Your task to perform on an android device: See recent photos Image 0: 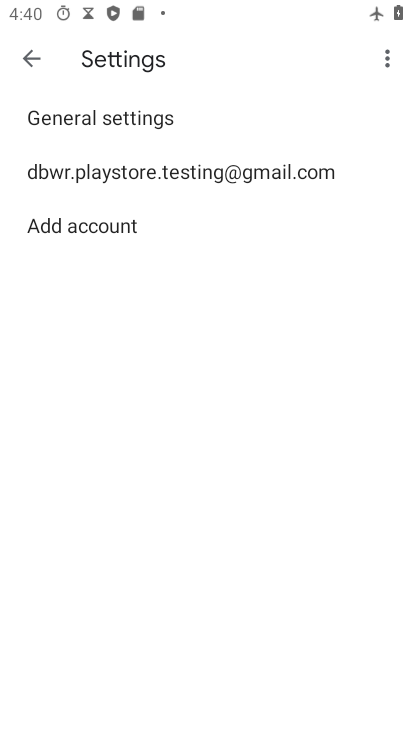
Step 0: press home button
Your task to perform on an android device: See recent photos Image 1: 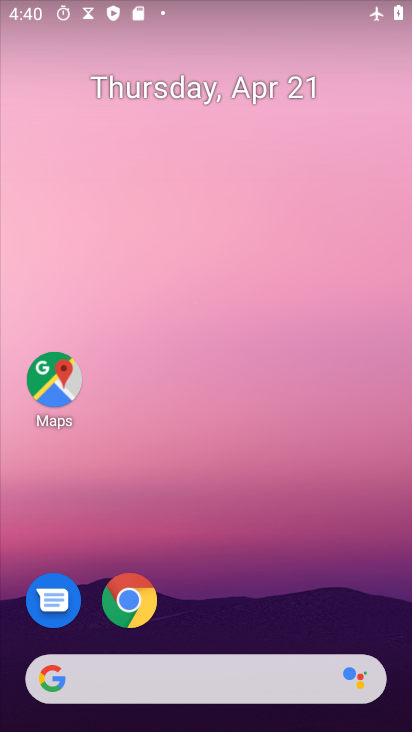
Step 1: drag from (258, 616) to (190, 58)
Your task to perform on an android device: See recent photos Image 2: 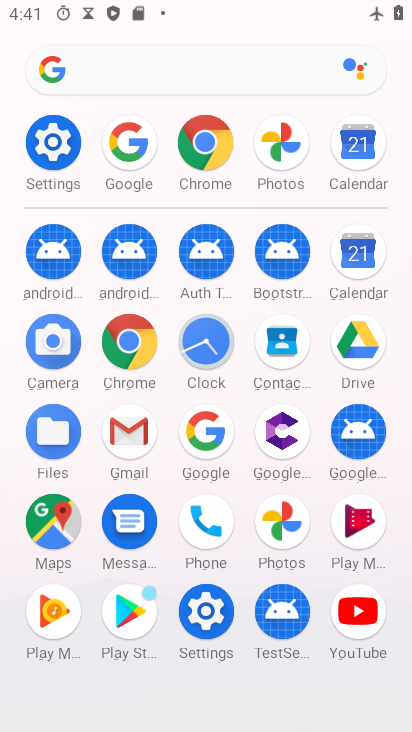
Step 2: click (280, 521)
Your task to perform on an android device: See recent photos Image 3: 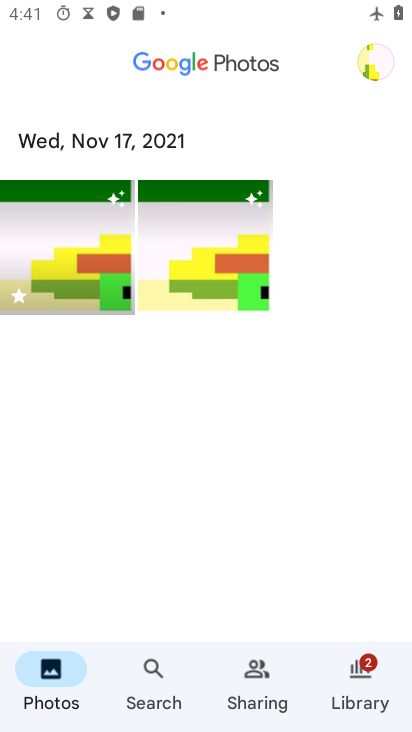
Step 3: click (67, 263)
Your task to perform on an android device: See recent photos Image 4: 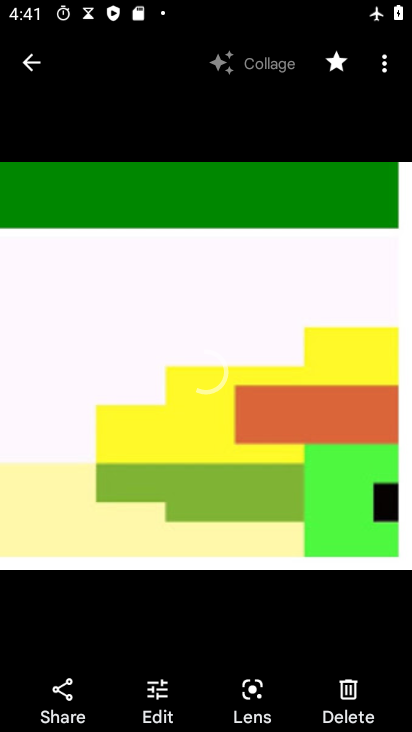
Step 4: task complete